Your task to perform on an android device: Open calendar and show me the second week of next month Image 0: 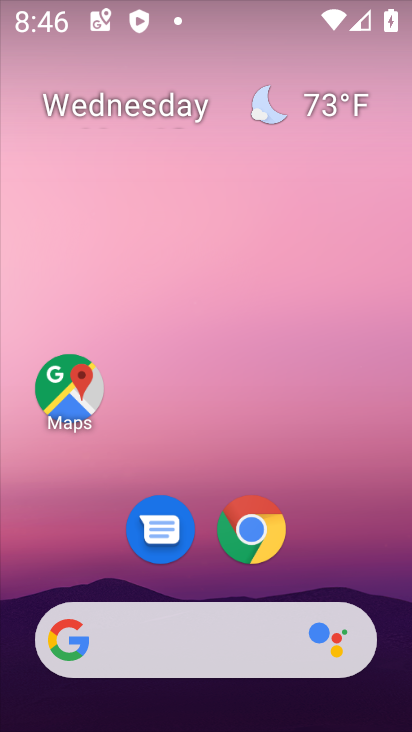
Step 0: drag from (374, 565) to (391, 244)
Your task to perform on an android device: Open calendar and show me the second week of next month Image 1: 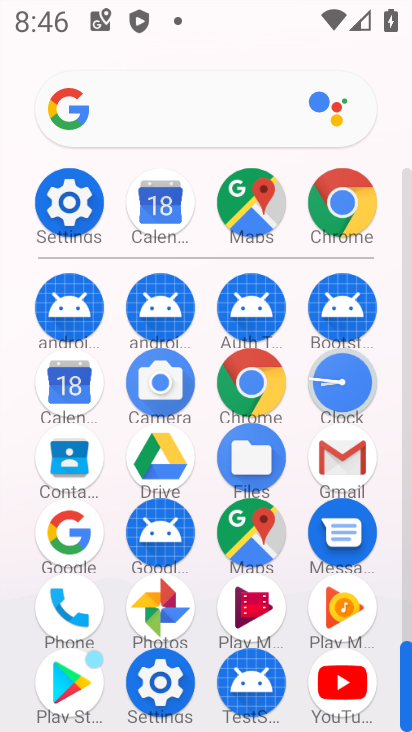
Step 1: click (77, 398)
Your task to perform on an android device: Open calendar and show me the second week of next month Image 2: 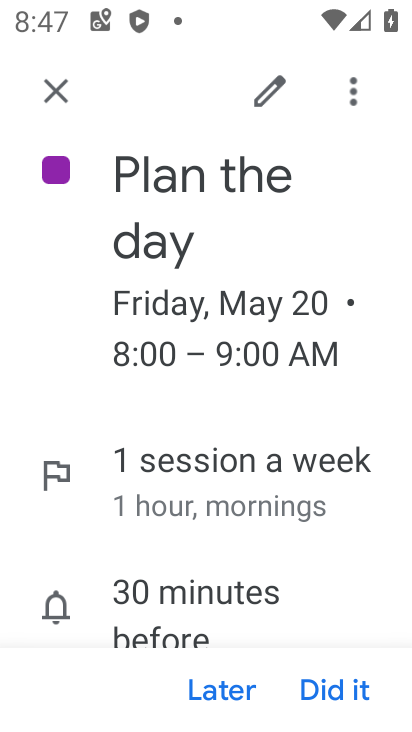
Step 2: click (51, 91)
Your task to perform on an android device: Open calendar and show me the second week of next month Image 3: 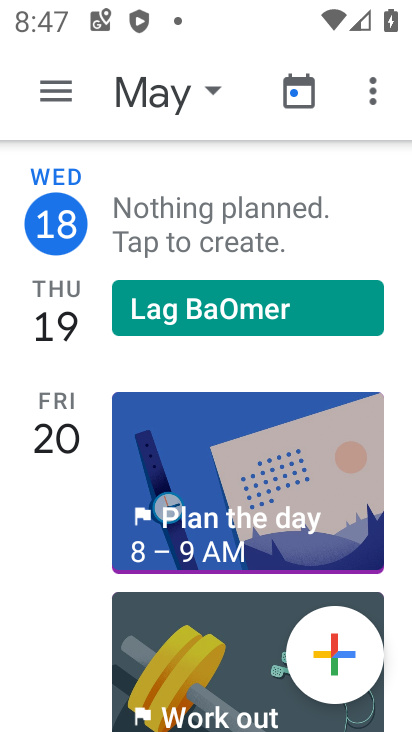
Step 3: click (214, 83)
Your task to perform on an android device: Open calendar and show me the second week of next month Image 4: 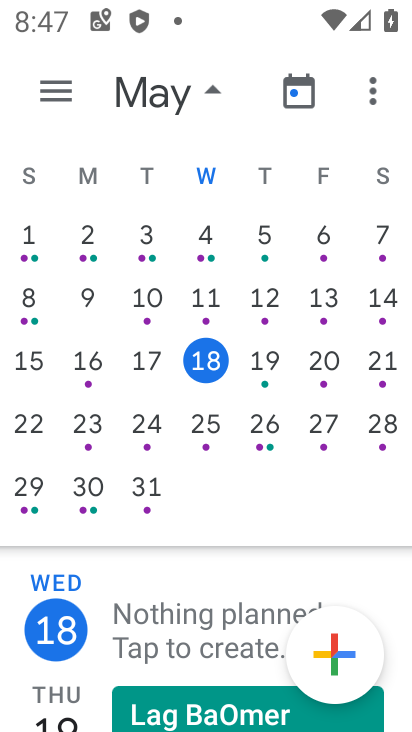
Step 4: drag from (394, 208) to (2, 201)
Your task to perform on an android device: Open calendar and show me the second week of next month Image 5: 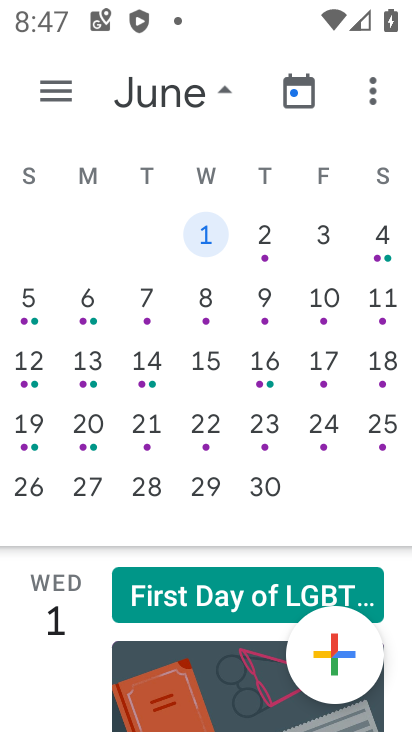
Step 5: click (83, 310)
Your task to perform on an android device: Open calendar and show me the second week of next month Image 6: 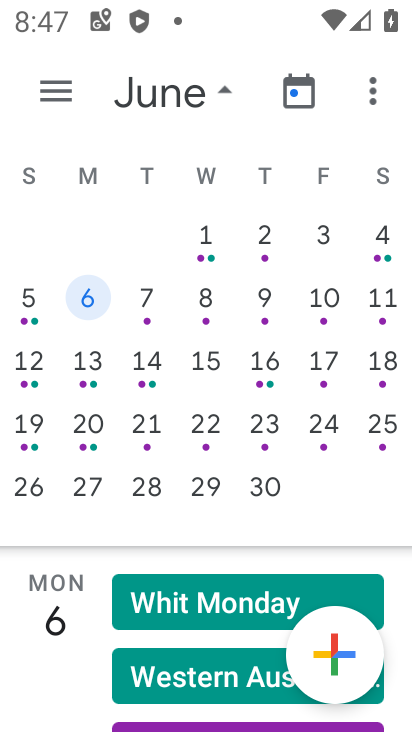
Step 6: task complete